Your task to perform on an android device: find snoozed emails in the gmail app Image 0: 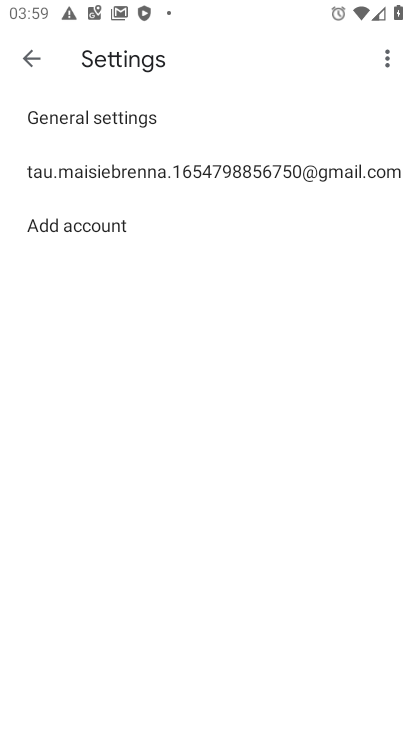
Step 0: press home button
Your task to perform on an android device: find snoozed emails in the gmail app Image 1: 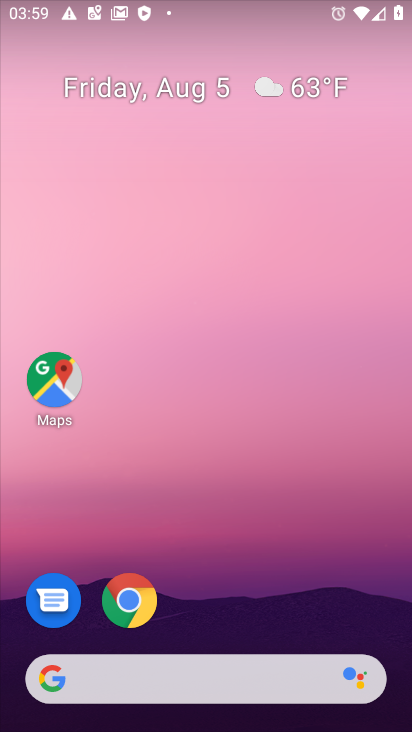
Step 1: drag from (213, 677) to (216, 75)
Your task to perform on an android device: find snoozed emails in the gmail app Image 2: 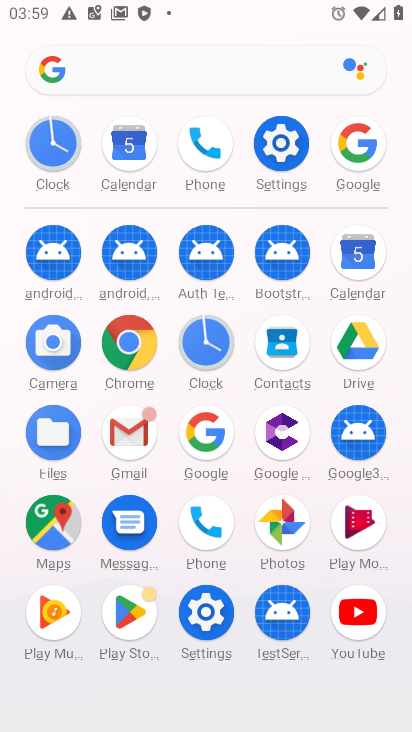
Step 2: click (130, 433)
Your task to perform on an android device: find snoozed emails in the gmail app Image 3: 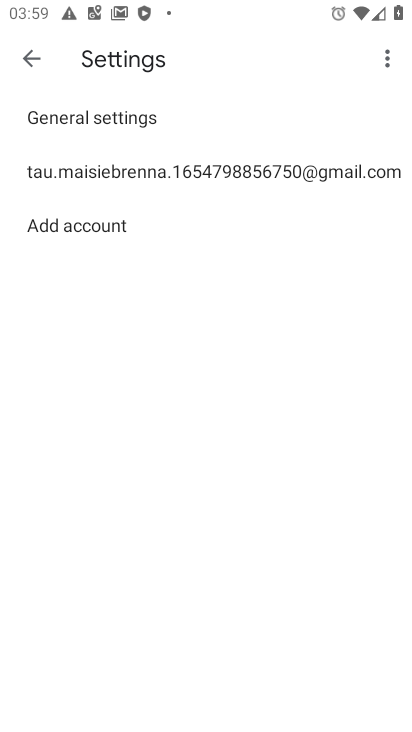
Step 3: press back button
Your task to perform on an android device: find snoozed emails in the gmail app Image 4: 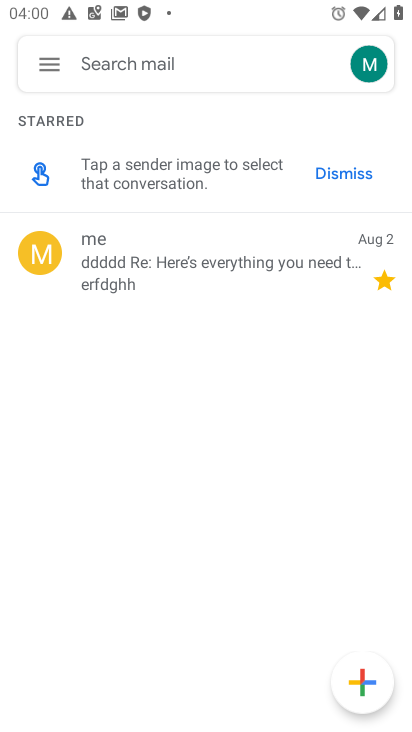
Step 4: click (46, 63)
Your task to perform on an android device: find snoozed emails in the gmail app Image 5: 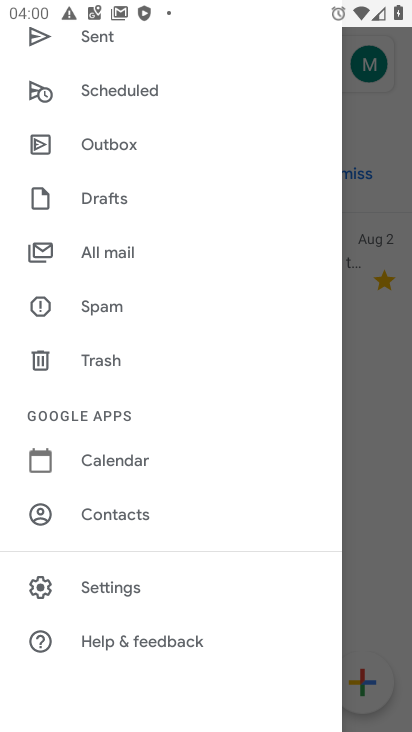
Step 5: drag from (127, 122) to (108, 334)
Your task to perform on an android device: find snoozed emails in the gmail app Image 6: 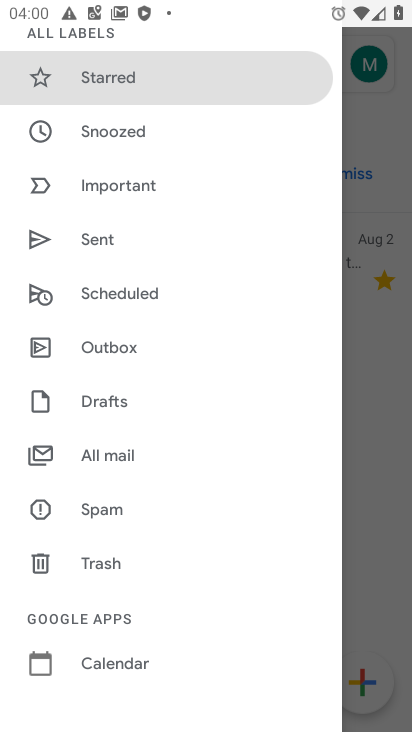
Step 6: click (111, 129)
Your task to perform on an android device: find snoozed emails in the gmail app Image 7: 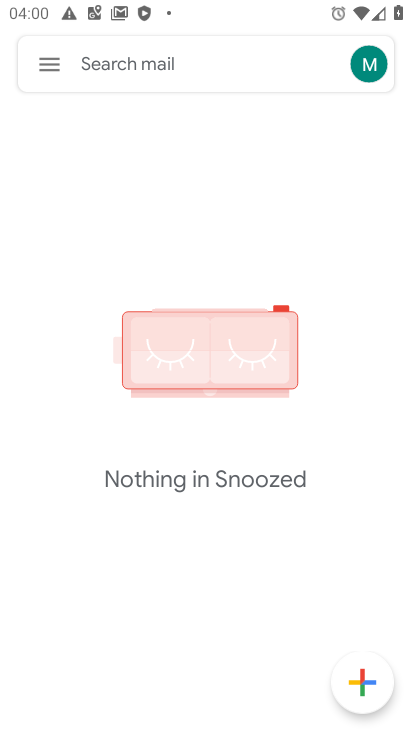
Step 7: click (41, 60)
Your task to perform on an android device: find snoozed emails in the gmail app Image 8: 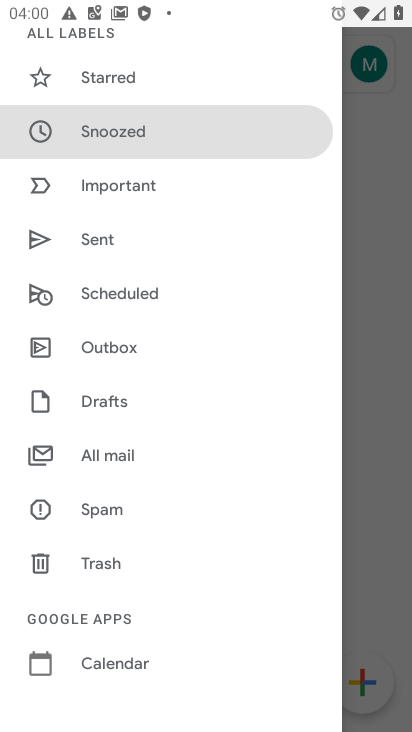
Step 8: task complete